Your task to perform on an android device: Open notification settings Image 0: 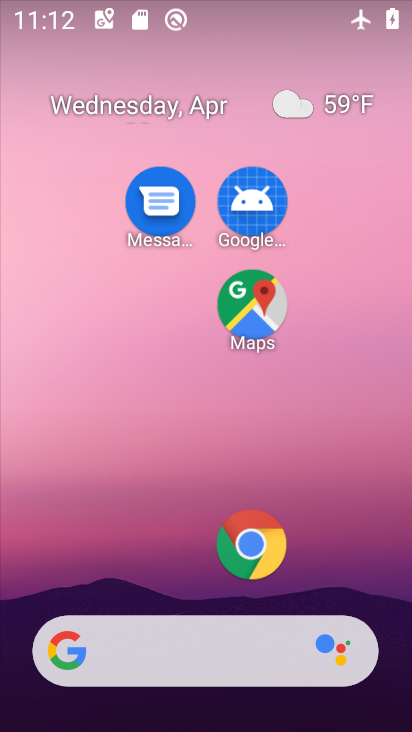
Step 0: drag from (183, 580) to (232, 125)
Your task to perform on an android device: Open notification settings Image 1: 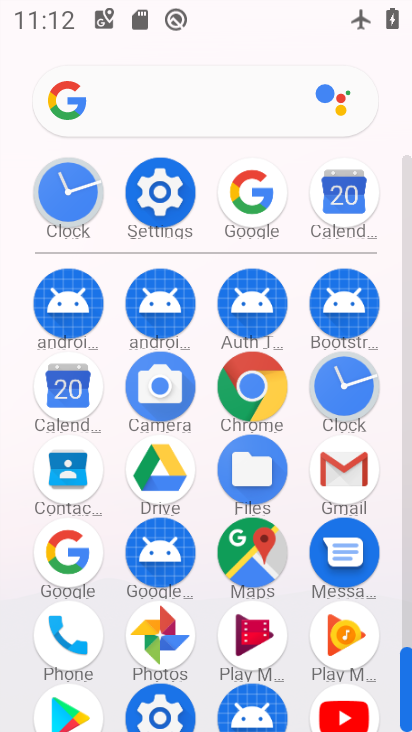
Step 1: click (158, 203)
Your task to perform on an android device: Open notification settings Image 2: 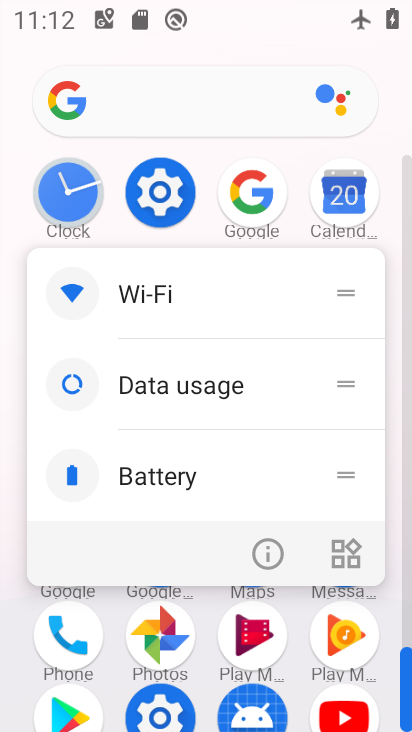
Step 2: click (158, 203)
Your task to perform on an android device: Open notification settings Image 3: 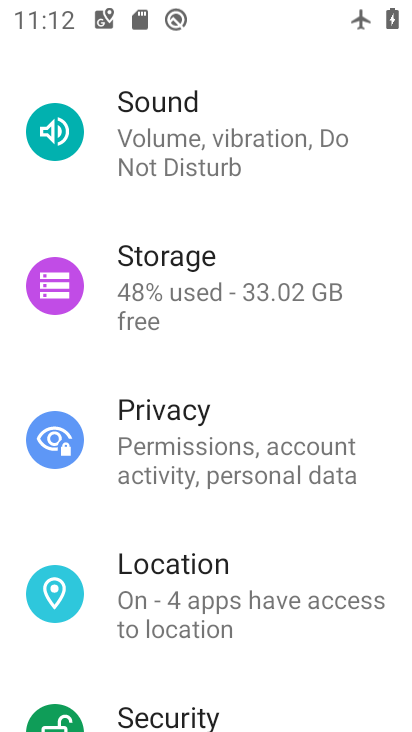
Step 3: drag from (267, 661) to (272, 165)
Your task to perform on an android device: Open notification settings Image 4: 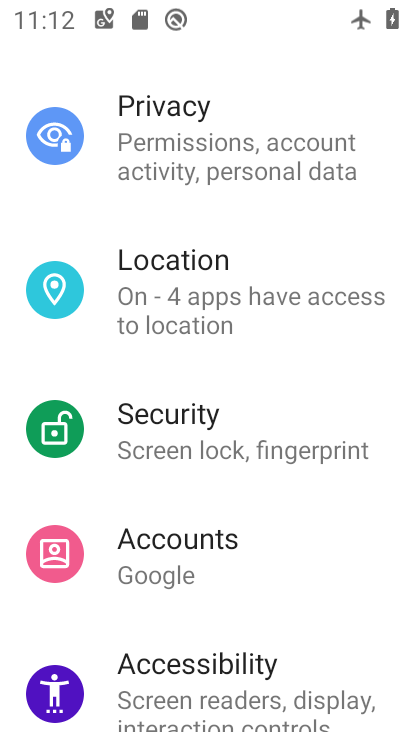
Step 4: drag from (229, 611) to (271, 270)
Your task to perform on an android device: Open notification settings Image 5: 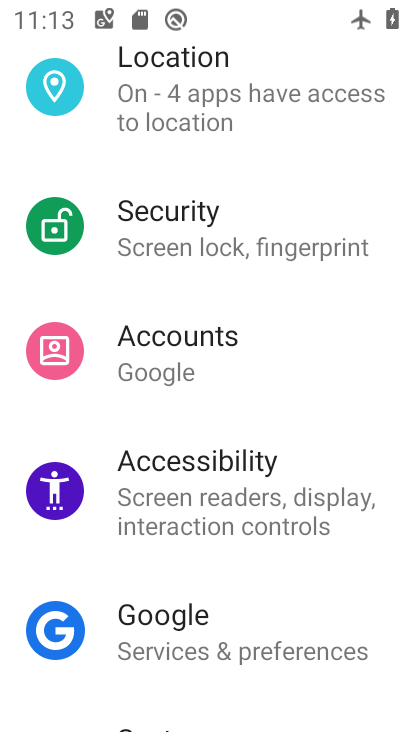
Step 5: drag from (267, 601) to (273, 661)
Your task to perform on an android device: Open notification settings Image 6: 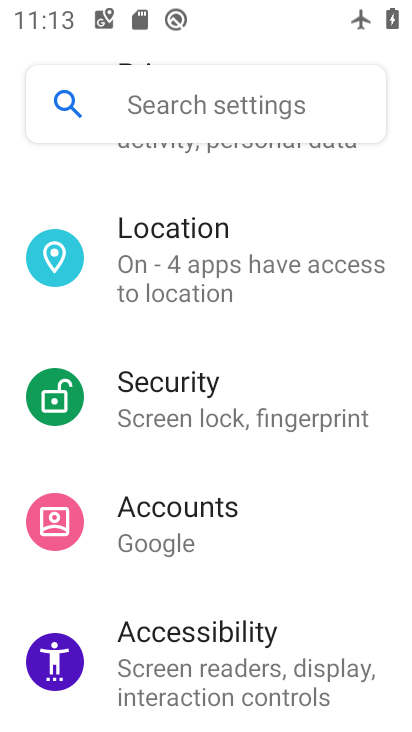
Step 6: drag from (233, 377) to (233, 611)
Your task to perform on an android device: Open notification settings Image 7: 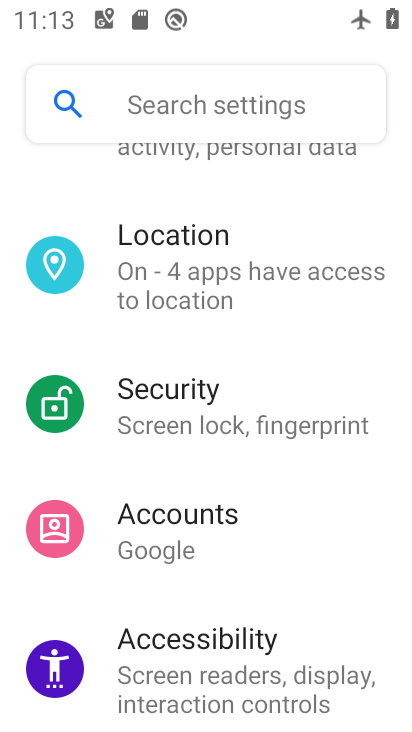
Step 7: drag from (239, 242) to (240, 601)
Your task to perform on an android device: Open notification settings Image 8: 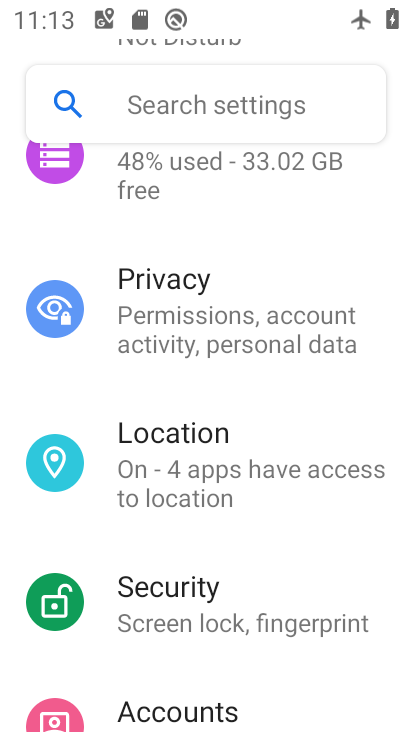
Step 8: drag from (237, 213) to (242, 588)
Your task to perform on an android device: Open notification settings Image 9: 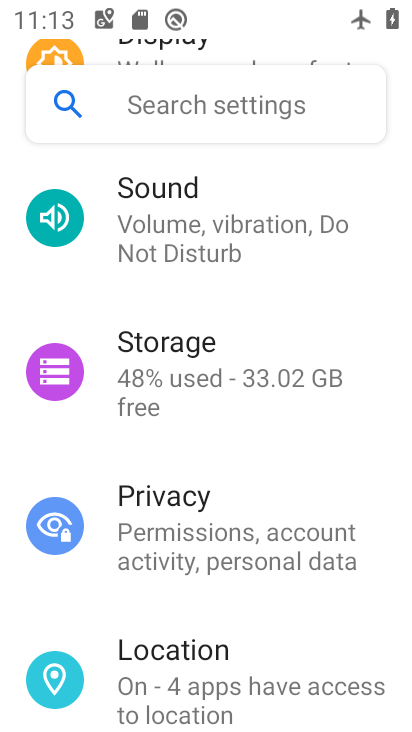
Step 9: drag from (258, 176) to (253, 669)
Your task to perform on an android device: Open notification settings Image 10: 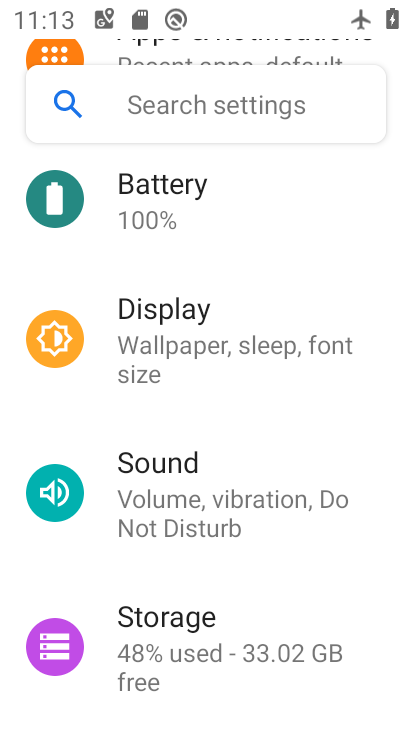
Step 10: drag from (236, 182) to (262, 568)
Your task to perform on an android device: Open notification settings Image 11: 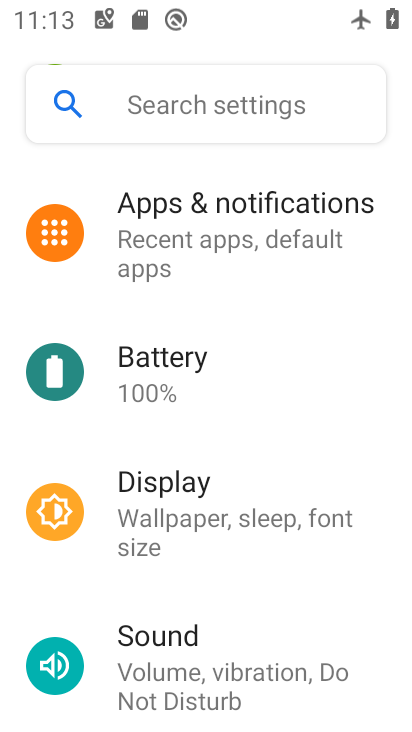
Step 11: click (245, 247)
Your task to perform on an android device: Open notification settings Image 12: 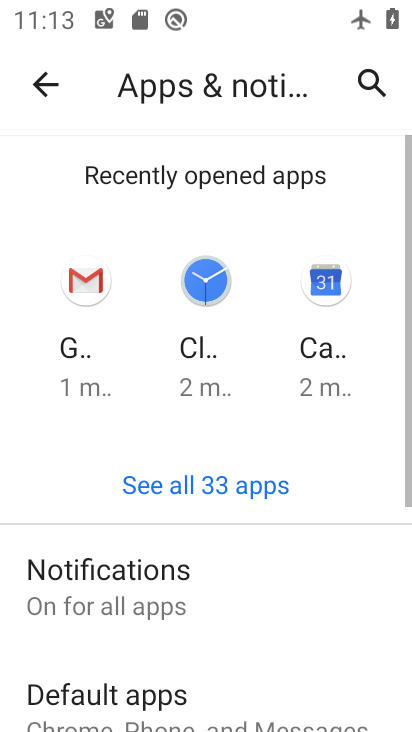
Step 12: task complete